Your task to perform on an android device: Open Chrome and go to settings Image 0: 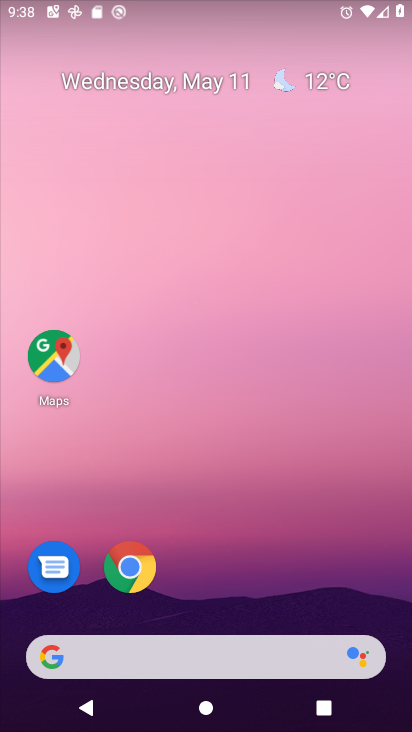
Step 0: click (133, 558)
Your task to perform on an android device: Open Chrome and go to settings Image 1: 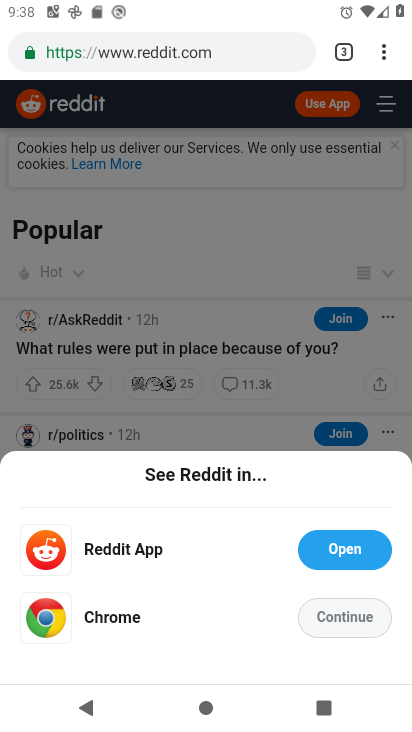
Step 1: click (384, 53)
Your task to perform on an android device: Open Chrome and go to settings Image 2: 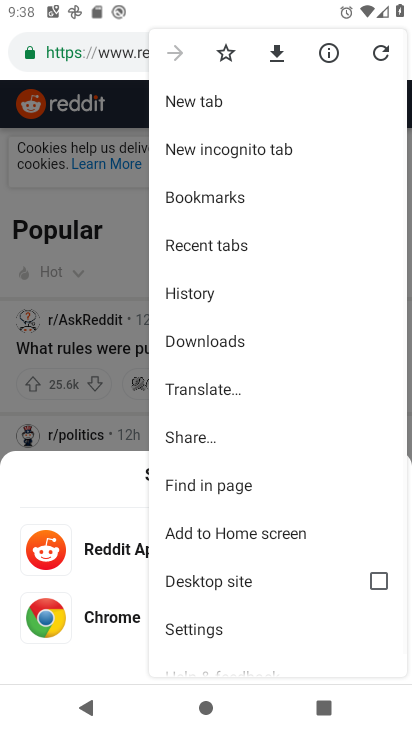
Step 2: click (217, 626)
Your task to perform on an android device: Open Chrome and go to settings Image 3: 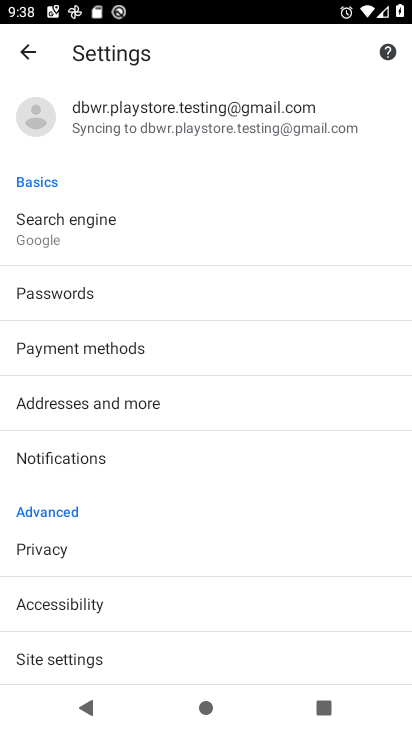
Step 3: task complete